Your task to perform on an android device: turn off notifications settings in the gmail app Image 0: 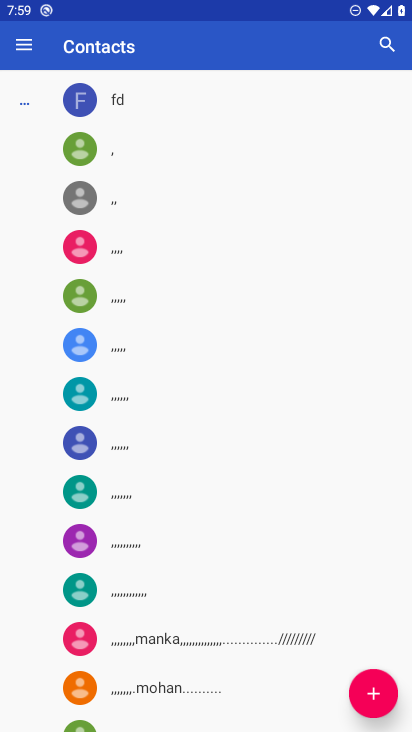
Step 0: press home button
Your task to perform on an android device: turn off notifications settings in the gmail app Image 1: 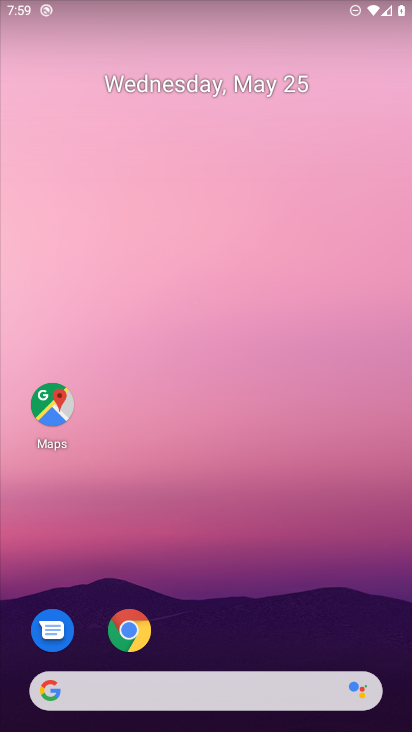
Step 1: drag from (156, 650) to (236, 294)
Your task to perform on an android device: turn off notifications settings in the gmail app Image 2: 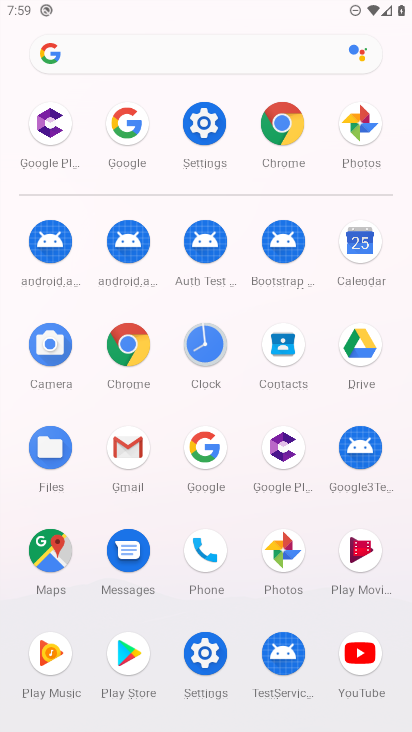
Step 2: click (145, 452)
Your task to perform on an android device: turn off notifications settings in the gmail app Image 3: 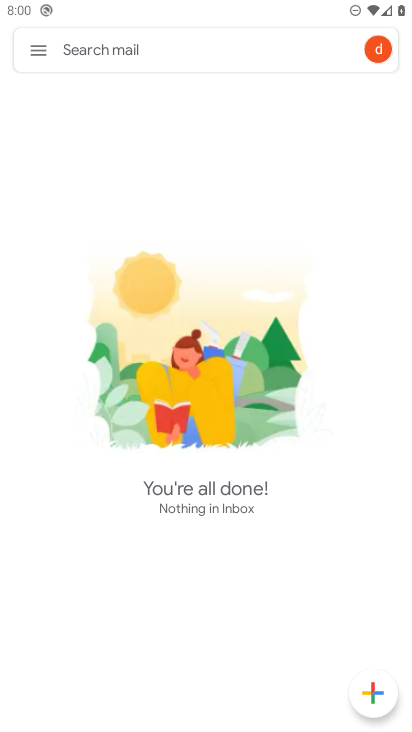
Step 3: click (36, 46)
Your task to perform on an android device: turn off notifications settings in the gmail app Image 4: 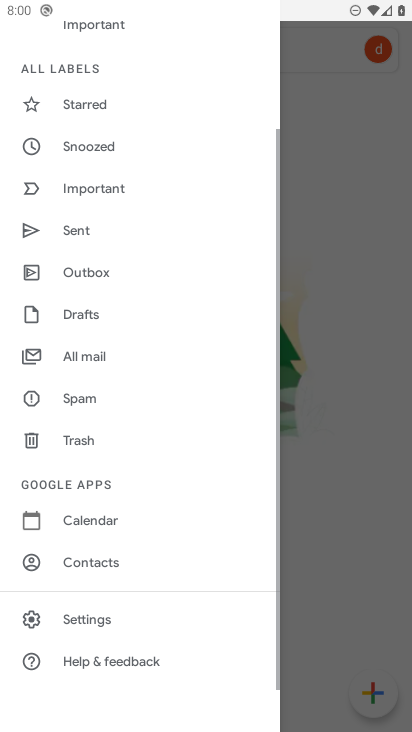
Step 4: click (70, 626)
Your task to perform on an android device: turn off notifications settings in the gmail app Image 5: 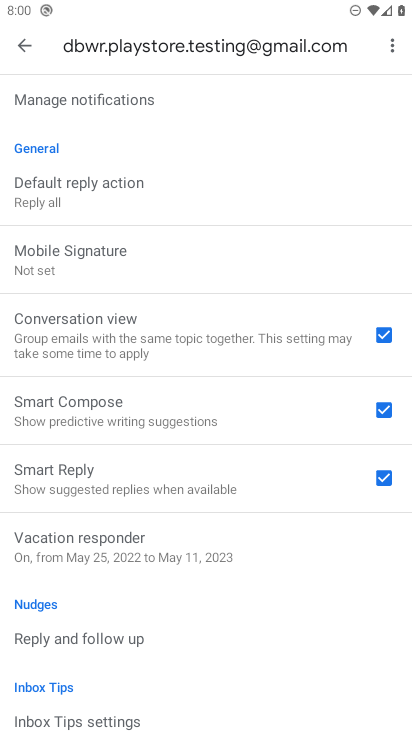
Step 5: drag from (44, 711) to (104, 408)
Your task to perform on an android device: turn off notifications settings in the gmail app Image 6: 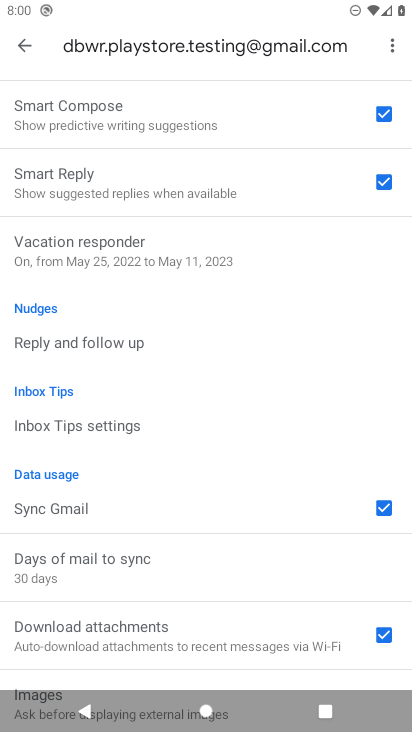
Step 6: click (23, 42)
Your task to perform on an android device: turn off notifications settings in the gmail app Image 7: 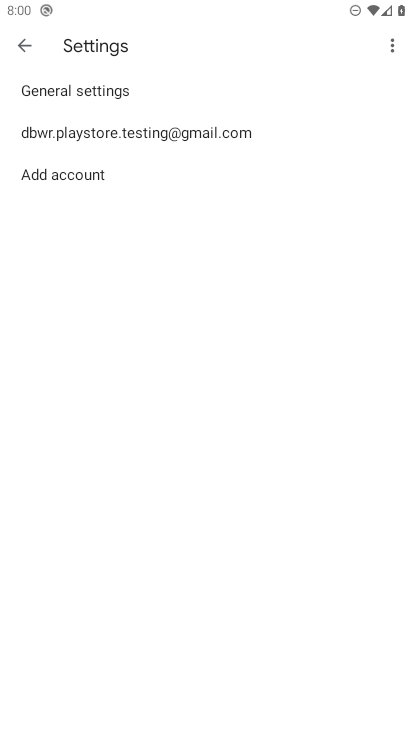
Step 7: click (84, 81)
Your task to perform on an android device: turn off notifications settings in the gmail app Image 8: 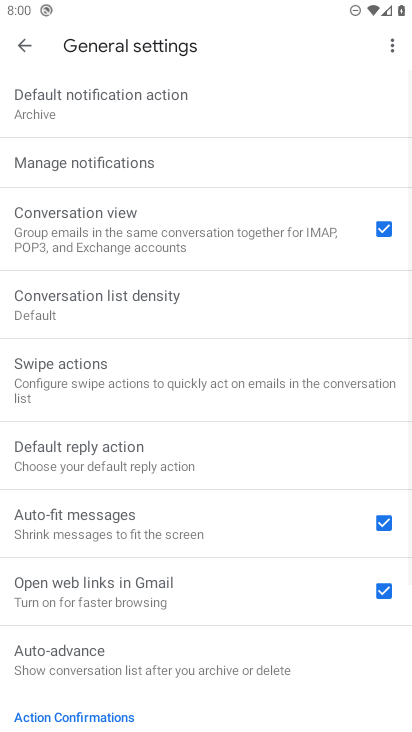
Step 8: click (78, 161)
Your task to perform on an android device: turn off notifications settings in the gmail app Image 9: 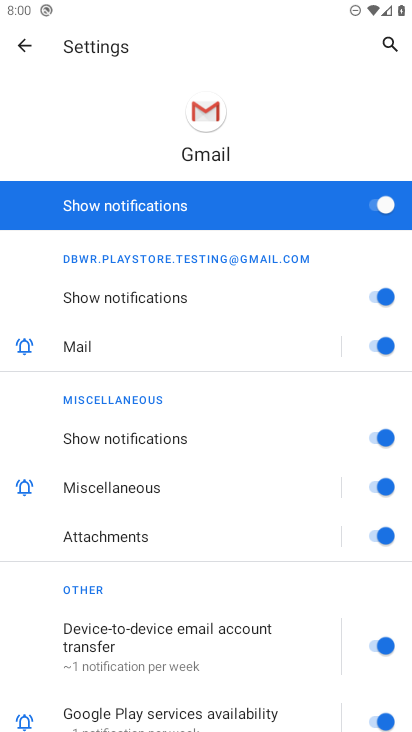
Step 9: click (378, 206)
Your task to perform on an android device: turn off notifications settings in the gmail app Image 10: 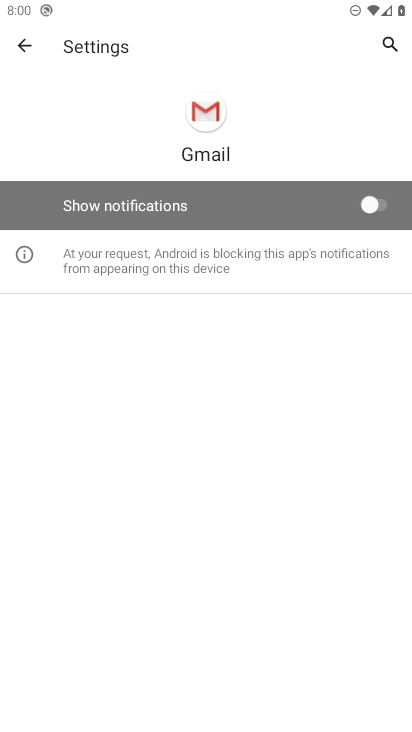
Step 10: task complete